Your task to perform on an android device: Clear the cart on costco. Add logitech g933 to the cart on costco, then select checkout. Image 0: 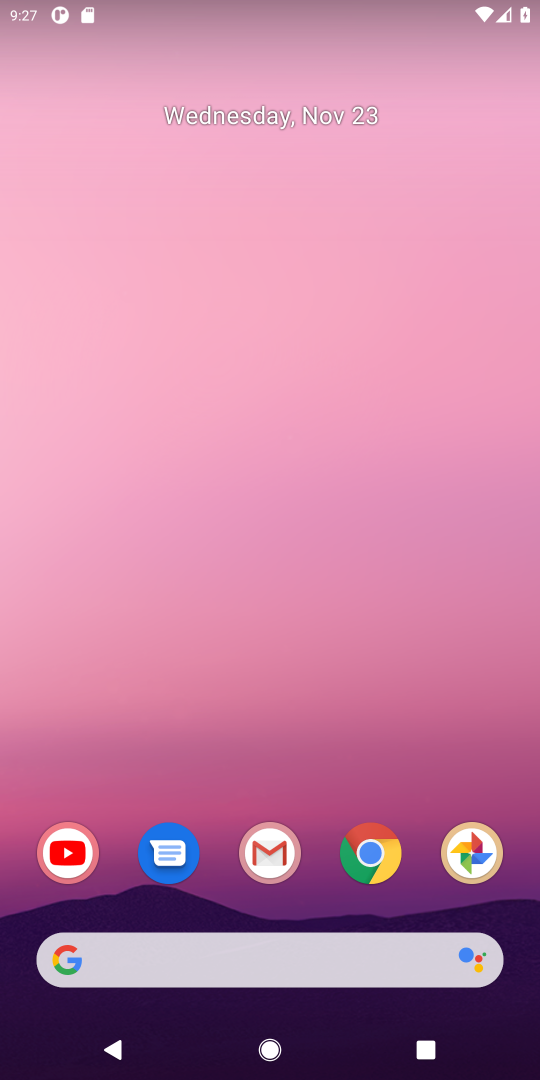
Step 0: click (366, 863)
Your task to perform on an android device: Clear the cart on costco. Add logitech g933 to the cart on costco, then select checkout. Image 1: 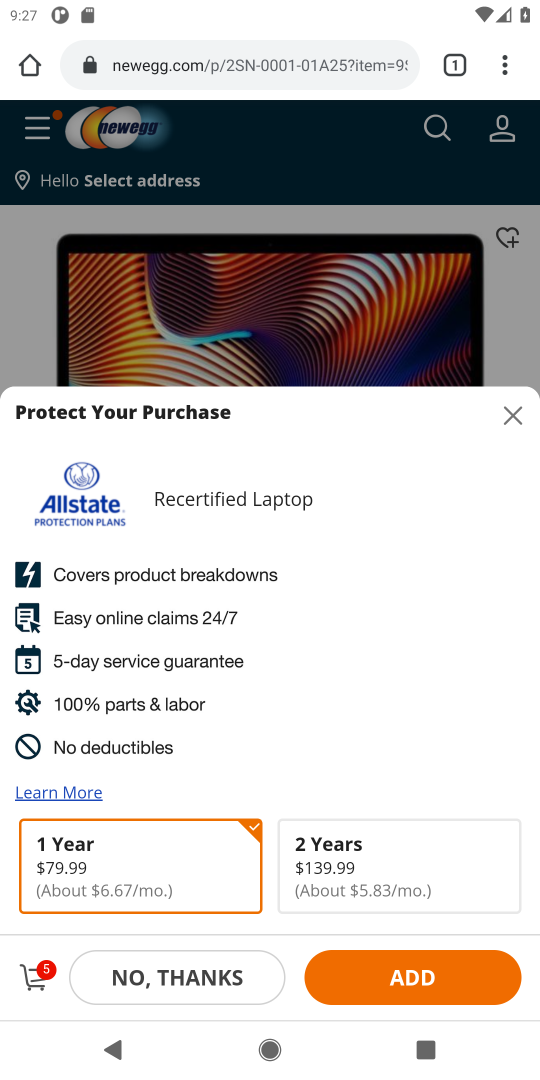
Step 1: click (212, 80)
Your task to perform on an android device: Clear the cart on costco. Add logitech g933 to the cart on costco, then select checkout. Image 2: 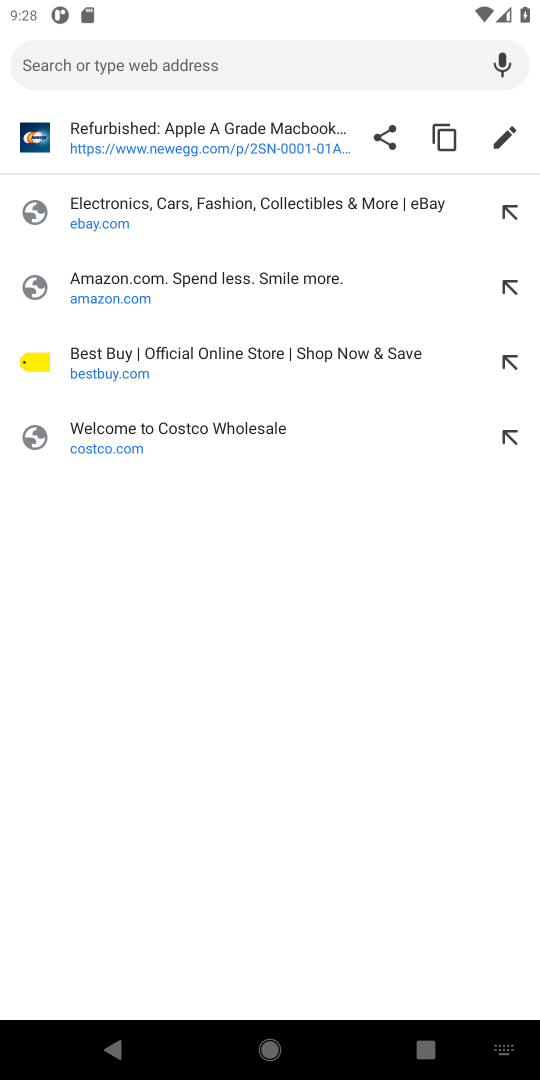
Step 2: click (85, 442)
Your task to perform on an android device: Clear the cart on costco. Add logitech g933 to the cart on costco, then select checkout. Image 3: 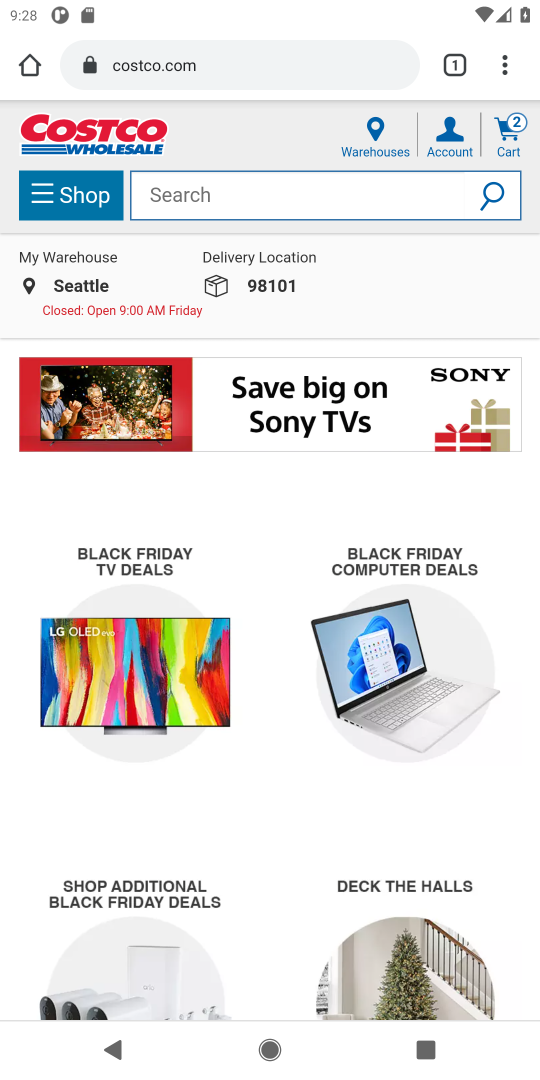
Step 3: click (205, 201)
Your task to perform on an android device: Clear the cart on costco. Add logitech g933 to the cart on costco, then select checkout. Image 4: 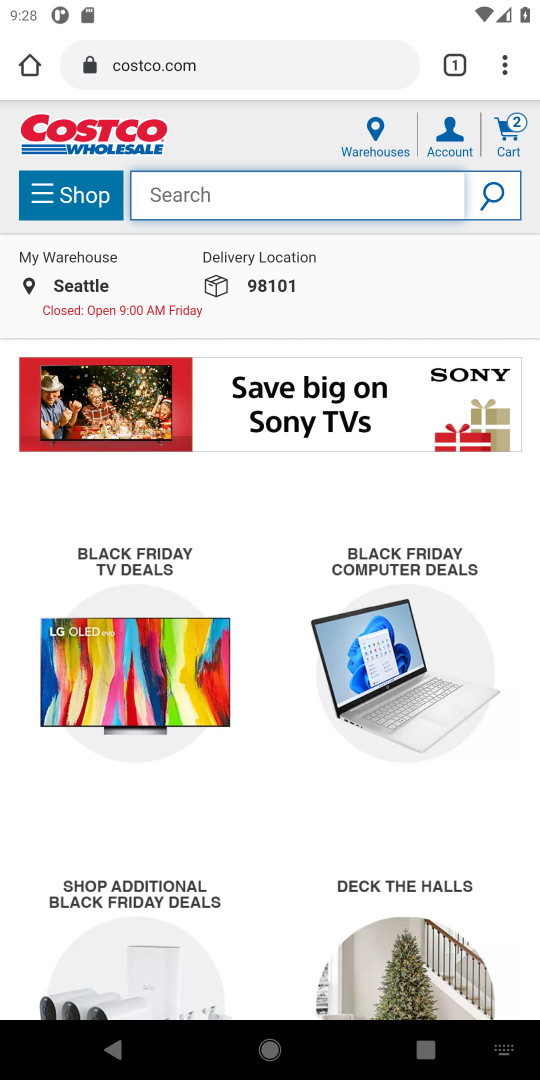
Step 4: click (491, 132)
Your task to perform on an android device: Clear the cart on costco. Add logitech g933 to the cart on costco, then select checkout. Image 5: 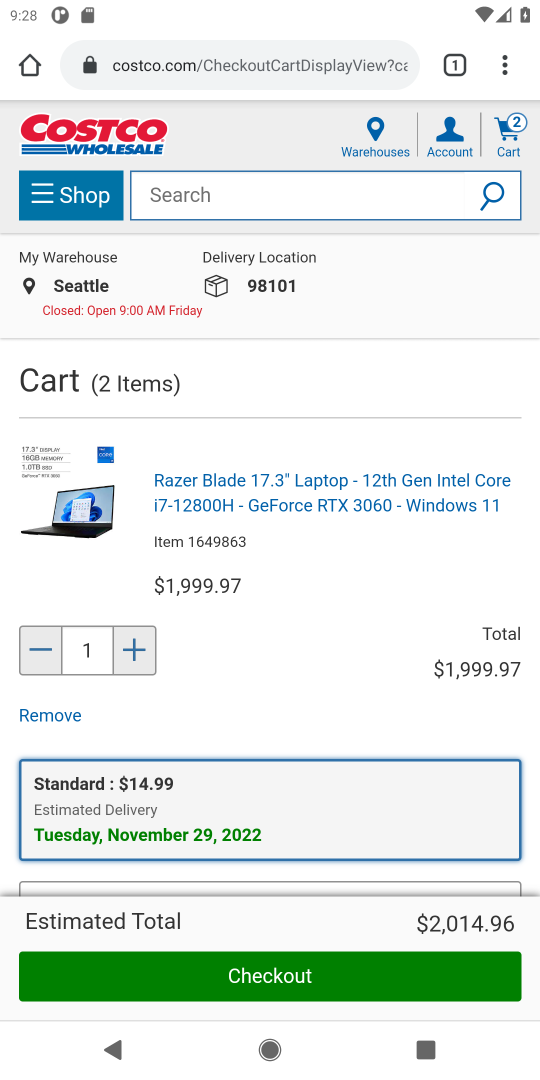
Step 5: drag from (203, 658) to (201, 261)
Your task to perform on an android device: Clear the cart on costco. Add logitech g933 to the cart on costco, then select checkout. Image 6: 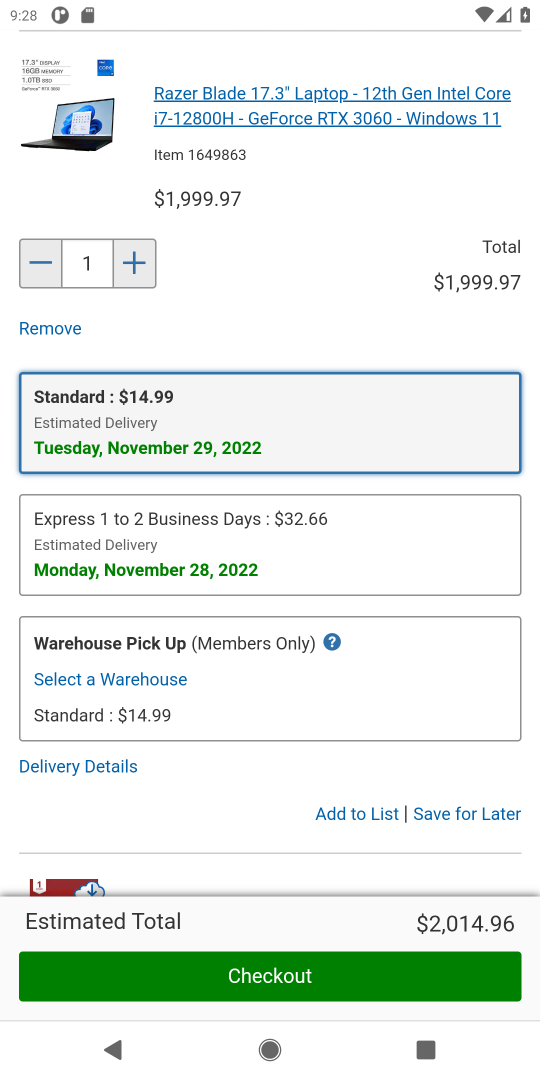
Step 6: drag from (228, 705) to (232, 581)
Your task to perform on an android device: Clear the cart on costco. Add logitech g933 to the cart on costco, then select checkout. Image 7: 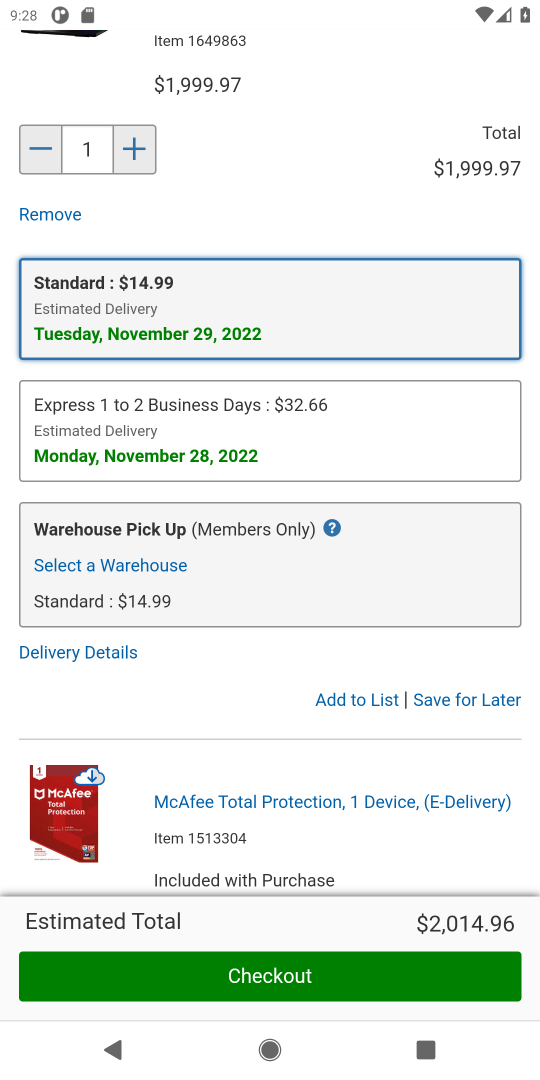
Step 7: click (466, 815)
Your task to perform on an android device: Clear the cart on costco. Add logitech g933 to the cart on costco, then select checkout. Image 8: 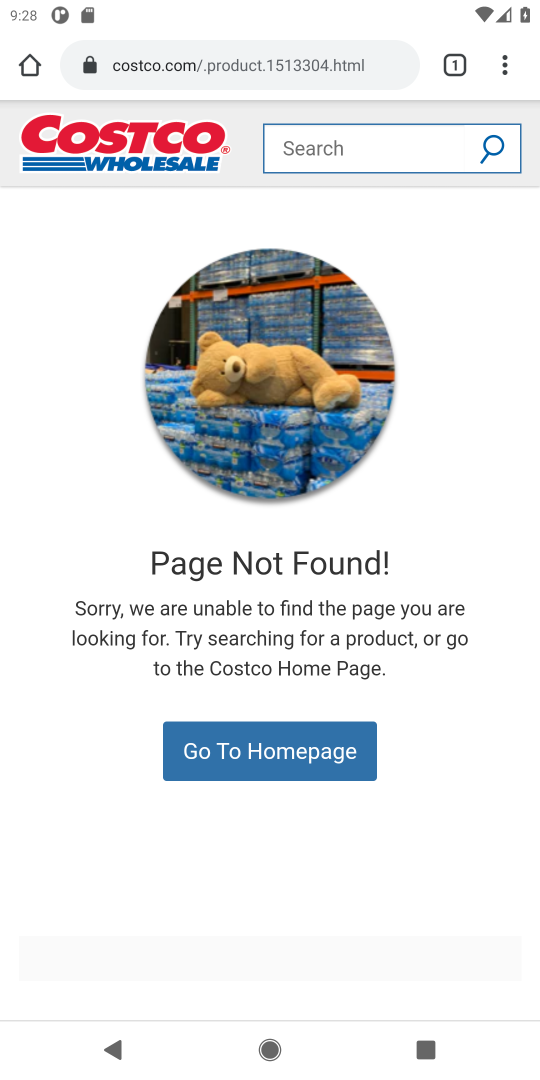
Step 8: click (463, 727)
Your task to perform on an android device: Clear the cart on costco. Add logitech g933 to the cart on costco, then select checkout. Image 9: 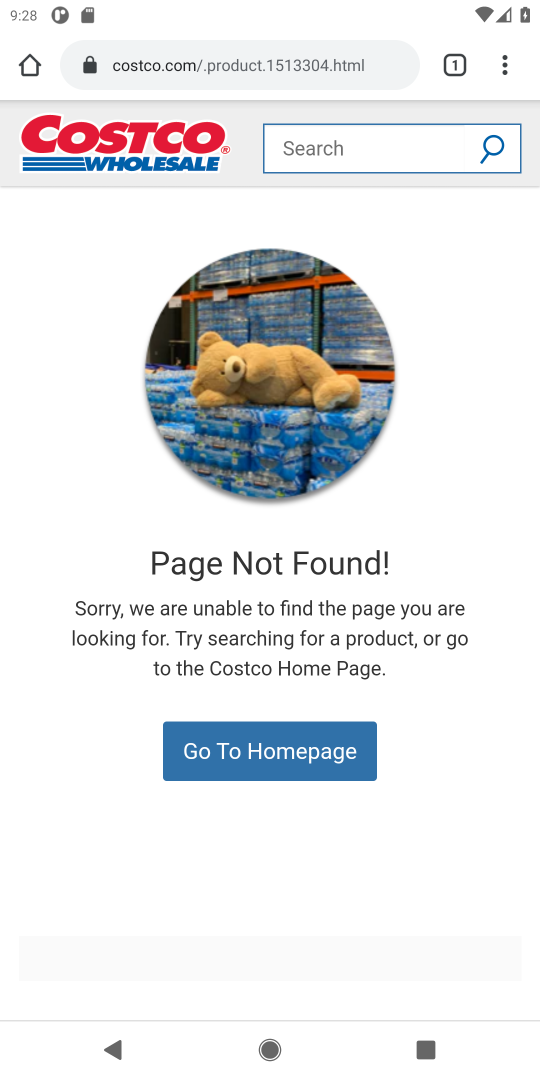
Step 9: click (468, 698)
Your task to perform on an android device: Clear the cart on costco. Add logitech g933 to the cart on costco, then select checkout. Image 10: 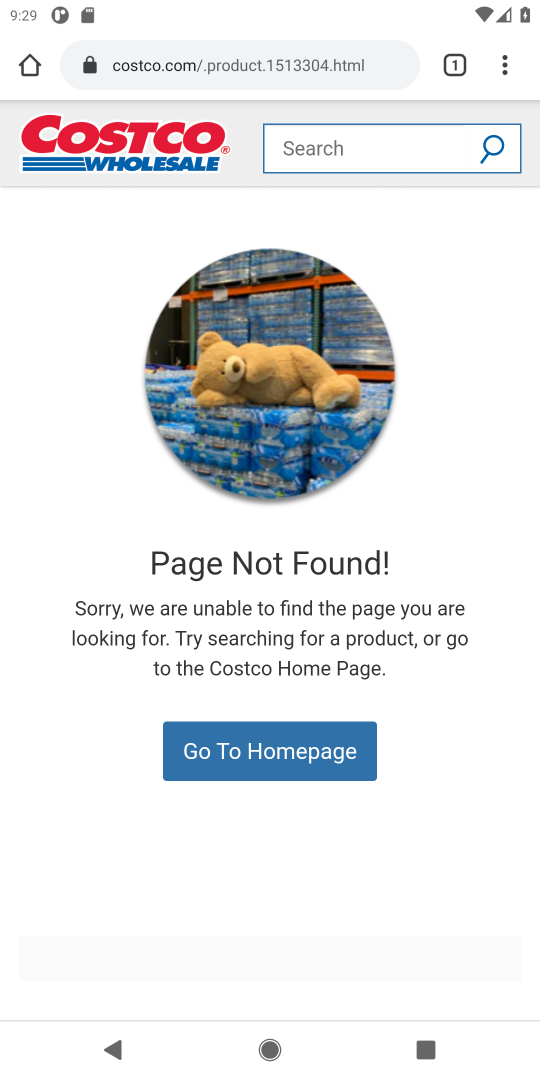
Step 10: task complete